Your task to perform on an android device: Open settings on Google Maps Image 0: 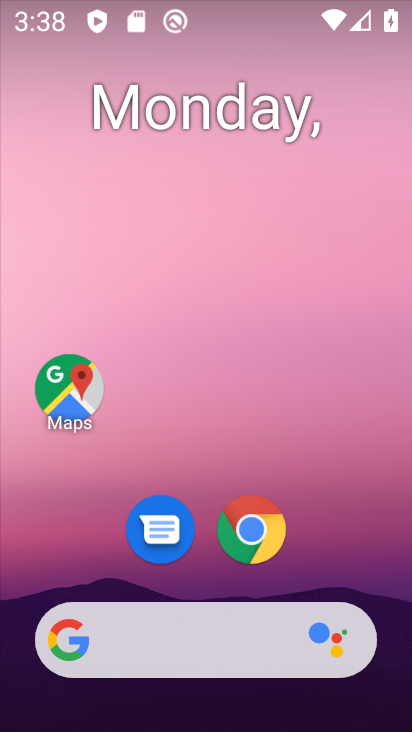
Step 0: click (81, 378)
Your task to perform on an android device: Open settings on Google Maps Image 1: 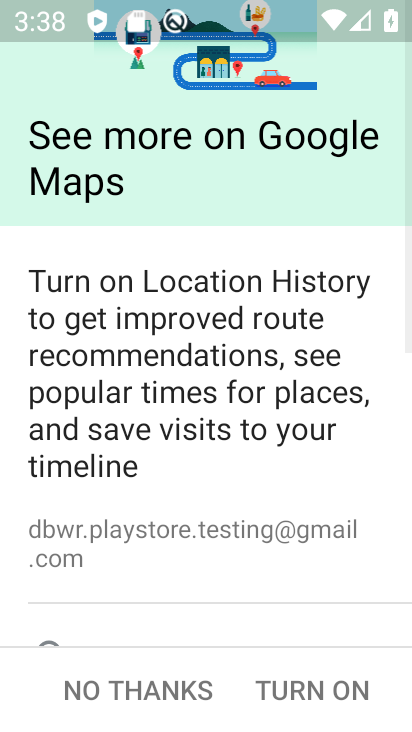
Step 1: click (126, 687)
Your task to perform on an android device: Open settings on Google Maps Image 2: 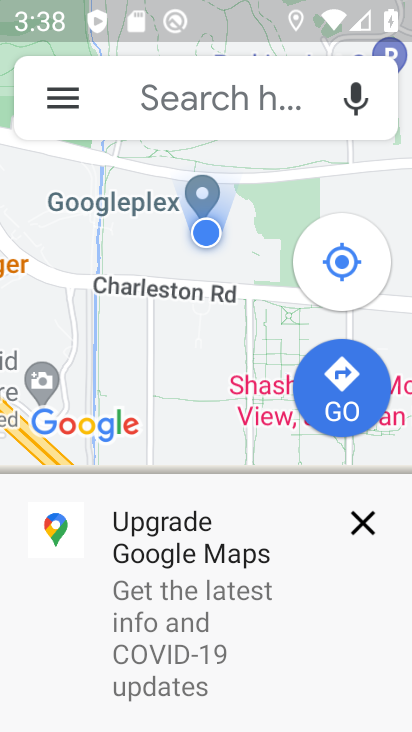
Step 2: click (360, 520)
Your task to perform on an android device: Open settings on Google Maps Image 3: 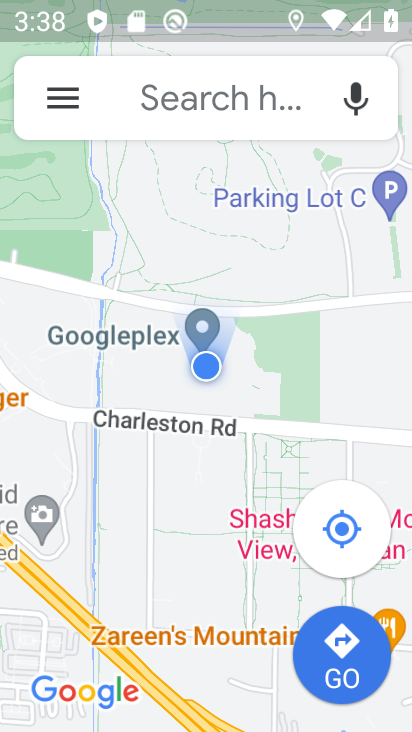
Step 3: click (66, 97)
Your task to perform on an android device: Open settings on Google Maps Image 4: 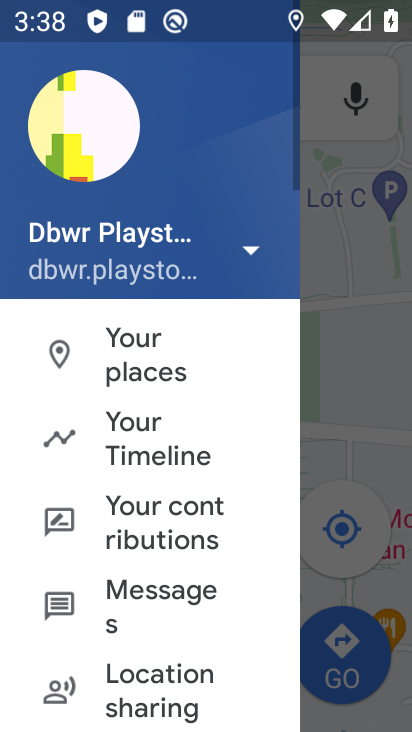
Step 4: drag from (109, 525) to (242, 22)
Your task to perform on an android device: Open settings on Google Maps Image 5: 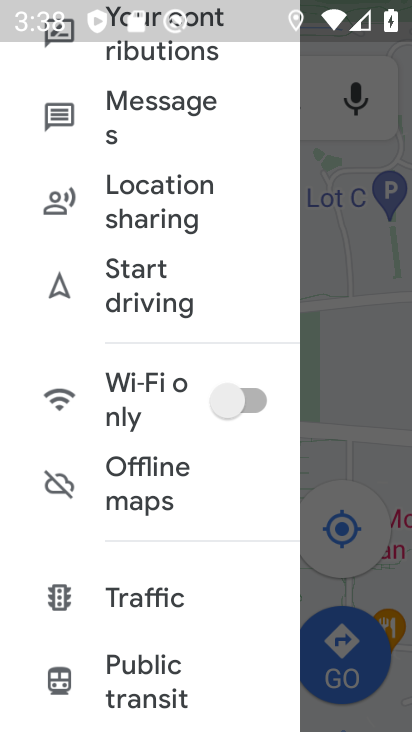
Step 5: drag from (159, 540) to (206, 79)
Your task to perform on an android device: Open settings on Google Maps Image 6: 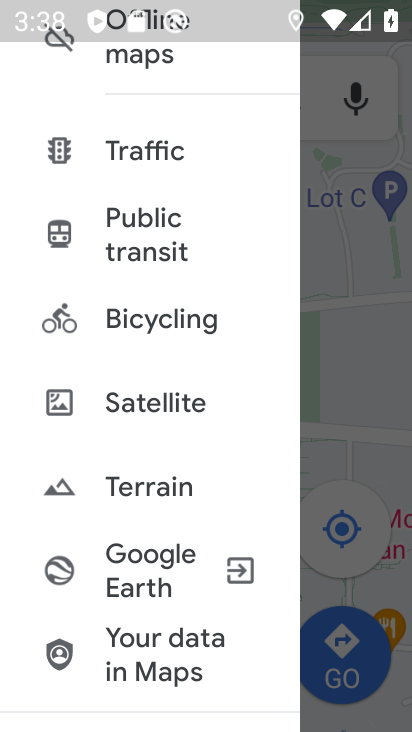
Step 6: drag from (104, 618) to (196, 55)
Your task to perform on an android device: Open settings on Google Maps Image 7: 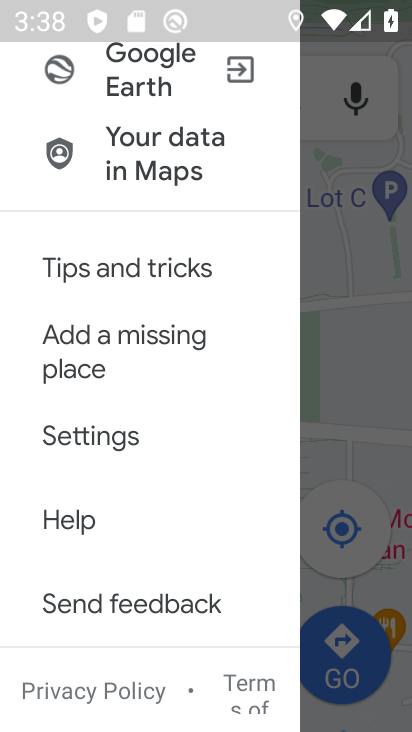
Step 7: click (104, 440)
Your task to perform on an android device: Open settings on Google Maps Image 8: 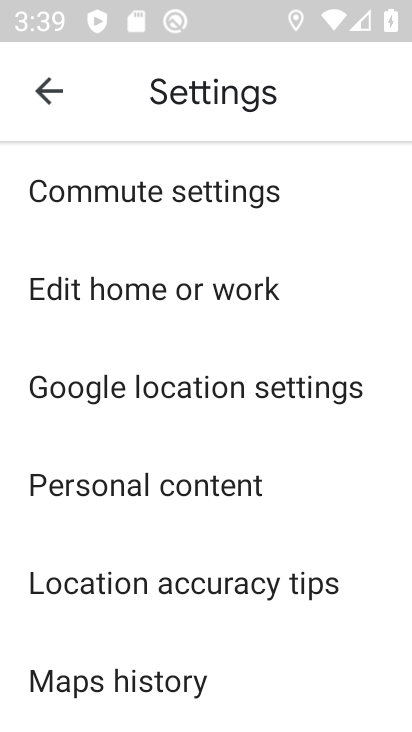
Step 8: task complete